Your task to perform on an android device: Search for macbook air on amazon, select the first entry, and add it to the cart. Image 0: 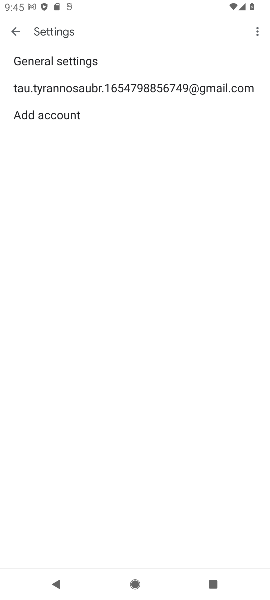
Step 0: press home button
Your task to perform on an android device: Search for macbook air on amazon, select the first entry, and add it to the cart. Image 1: 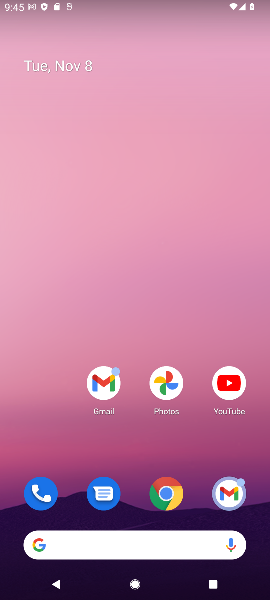
Step 1: click (160, 494)
Your task to perform on an android device: Search for macbook air on amazon, select the first entry, and add it to the cart. Image 2: 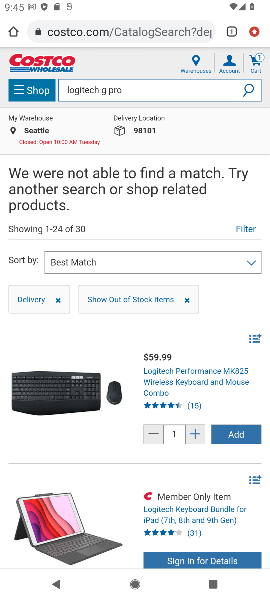
Step 2: click (102, 34)
Your task to perform on an android device: Search for macbook air on amazon, select the first entry, and add it to the cart. Image 3: 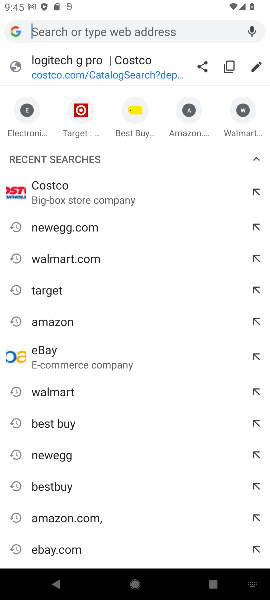
Step 3: click (172, 124)
Your task to perform on an android device: Search for macbook air on amazon, select the first entry, and add it to the cart. Image 4: 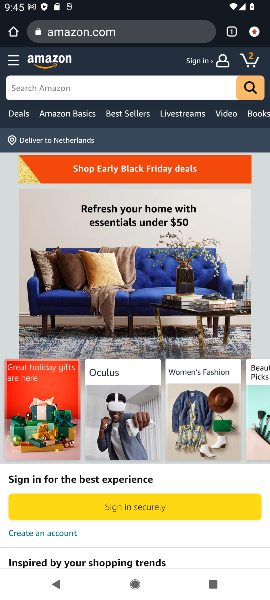
Step 4: click (108, 92)
Your task to perform on an android device: Search for macbook air on amazon, select the first entry, and add it to the cart. Image 5: 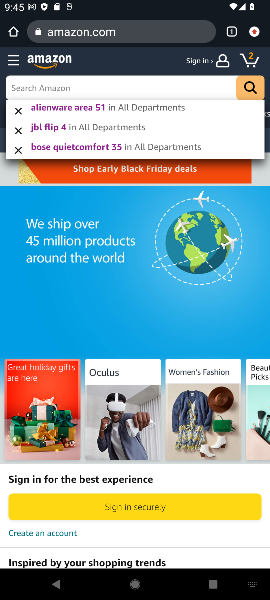
Step 5: type "macbook air"
Your task to perform on an android device: Search for macbook air on amazon, select the first entry, and add it to the cart. Image 6: 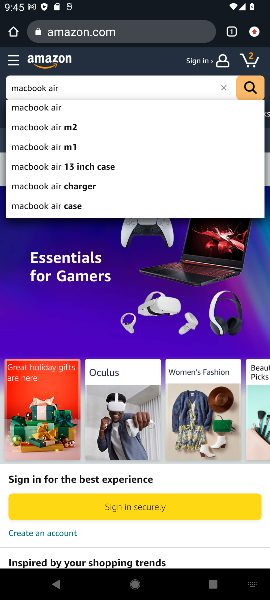
Step 6: click (35, 113)
Your task to perform on an android device: Search for macbook air on amazon, select the first entry, and add it to the cart. Image 7: 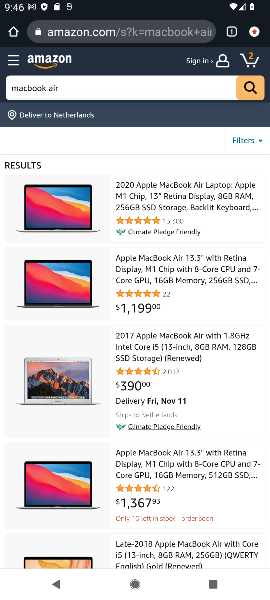
Step 7: click (114, 216)
Your task to perform on an android device: Search for macbook air on amazon, select the first entry, and add it to the cart. Image 8: 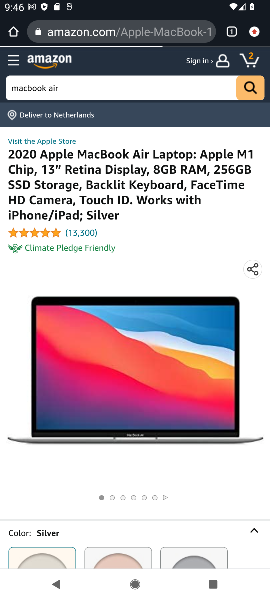
Step 8: task complete